Your task to perform on an android device: Search for vegetarian restaurants on Maps Image 0: 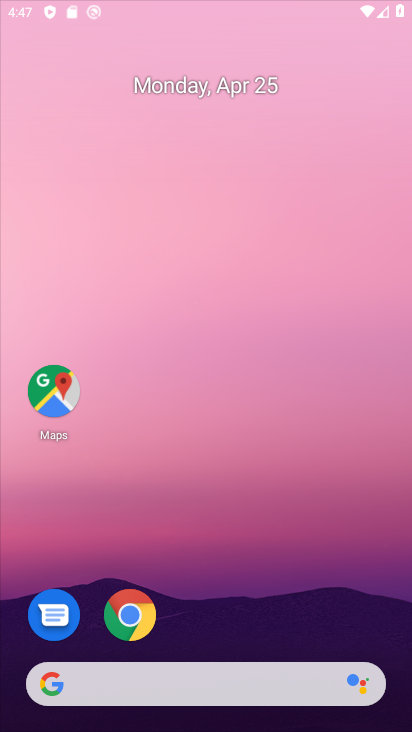
Step 0: click (411, 108)
Your task to perform on an android device: Search for vegetarian restaurants on Maps Image 1: 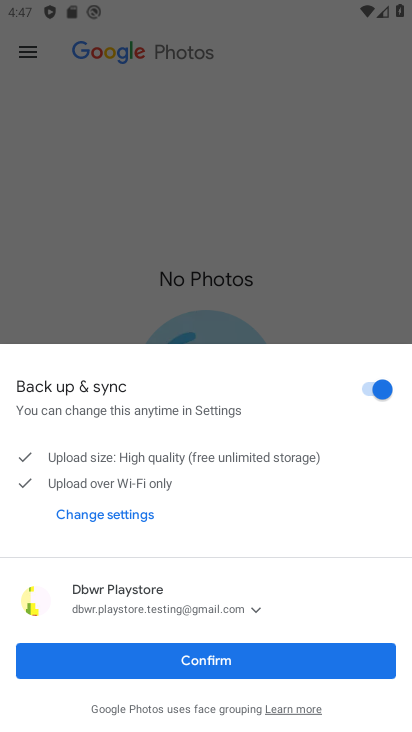
Step 1: press home button
Your task to perform on an android device: Search for vegetarian restaurants on Maps Image 2: 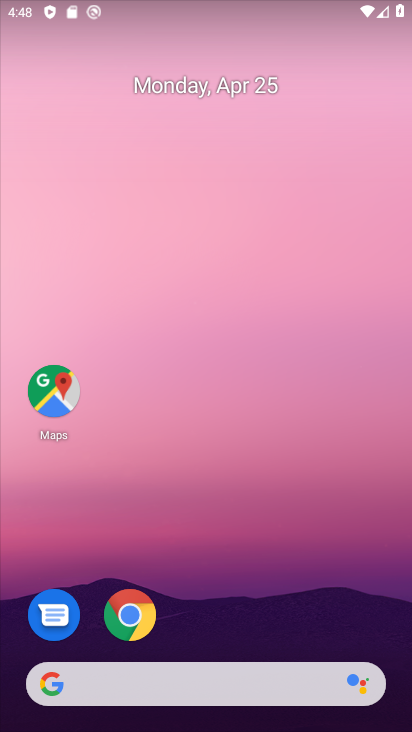
Step 2: drag from (290, 603) to (307, 1)
Your task to perform on an android device: Search for vegetarian restaurants on Maps Image 3: 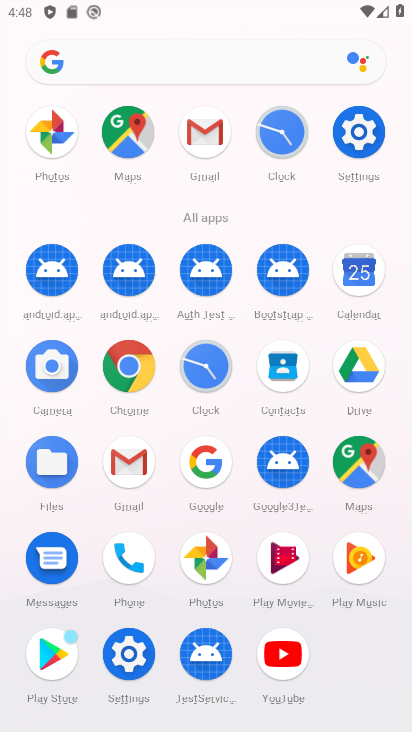
Step 3: click (133, 154)
Your task to perform on an android device: Search for vegetarian restaurants on Maps Image 4: 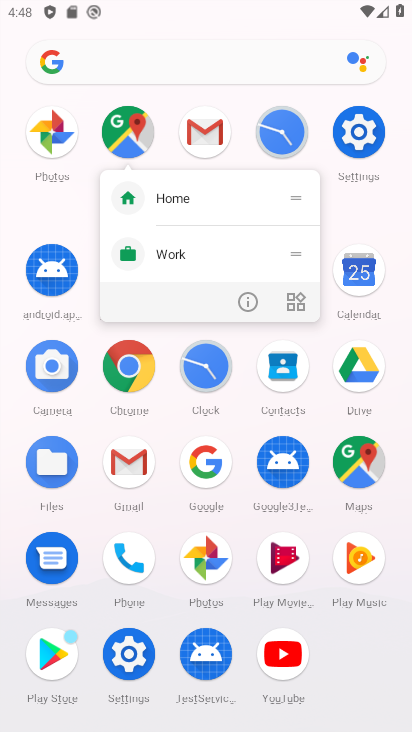
Step 4: click (115, 116)
Your task to perform on an android device: Search for vegetarian restaurants on Maps Image 5: 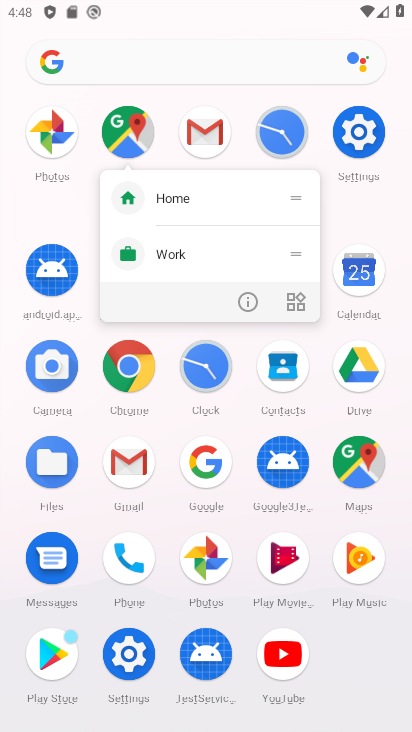
Step 5: click (119, 123)
Your task to perform on an android device: Search for vegetarian restaurants on Maps Image 6: 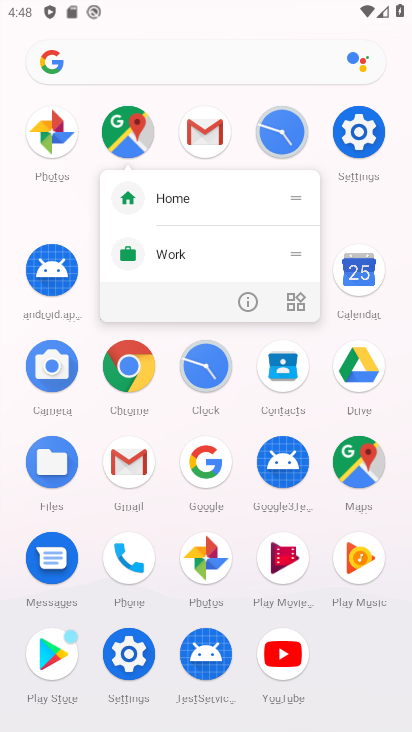
Step 6: click (119, 121)
Your task to perform on an android device: Search for vegetarian restaurants on Maps Image 7: 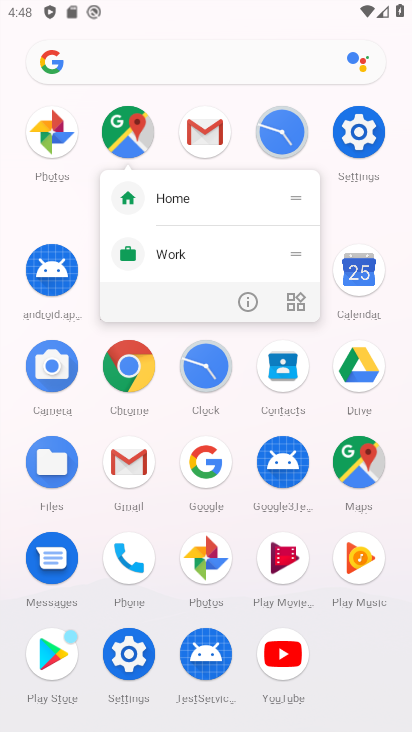
Step 7: click (119, 122)
Your task to perform on an android device: Search for vegetarian restaurants on Maps Image 8: 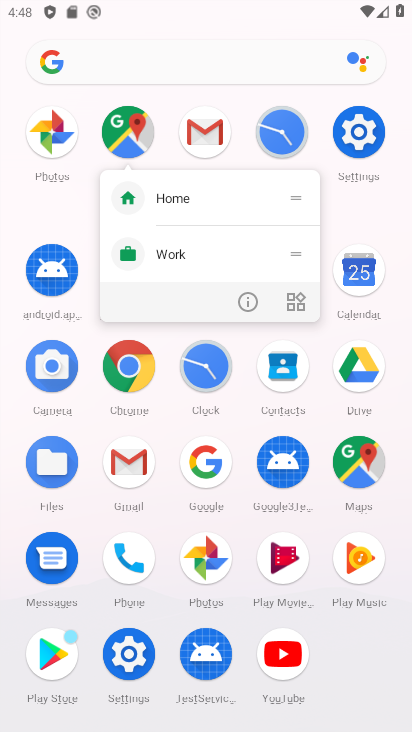
Step 8: click (119, 121)
Your task to perform on an android device: Search for vegetarian restaurants on Maps Image 9: 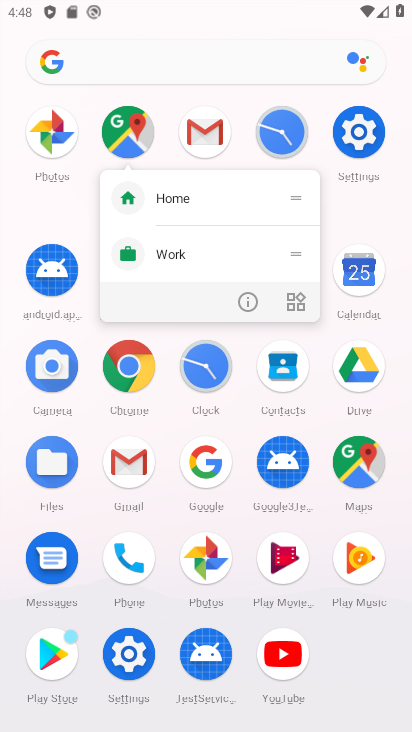
Step 9: click (119, 120)
Your task to perform on an android device: Search for vegetarian restaurants on Maps Image 10: 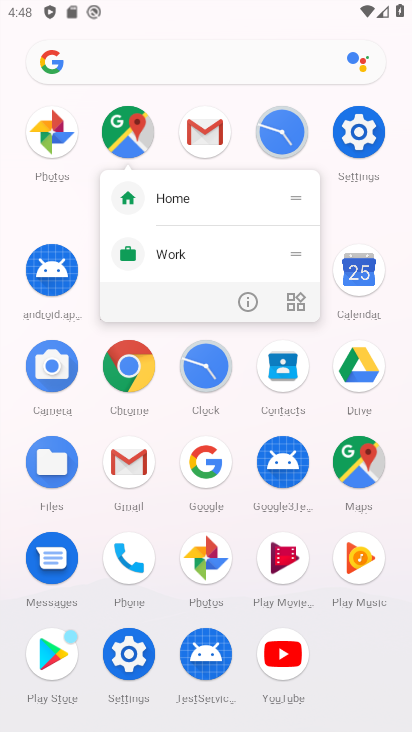
Step 10: click (119, 119)
Your task to perform on an android device: Search for vegetarian restaurants on Maps Image 11: 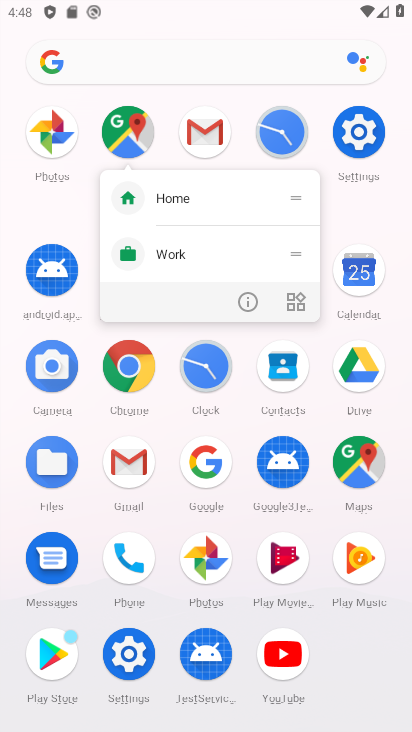
Step 11: click (119, 119)
Your task to perform on an android device: Search for vegetarian restaurants on Maps Image 12: 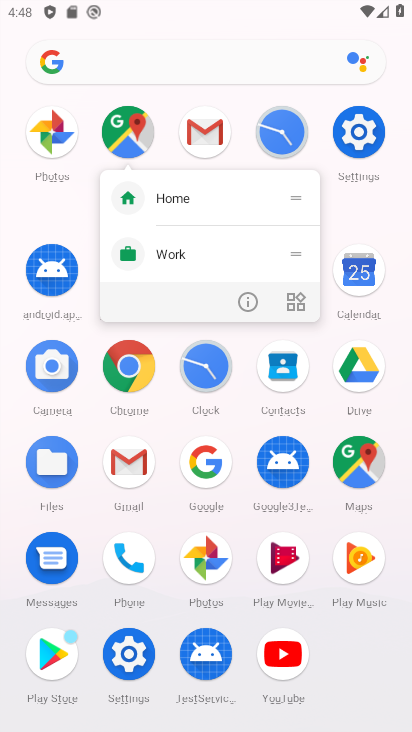
Step 12: click (119, 119)
Your task to perform on an android device: Search for vegetarian restaurants on Maps Image 13: 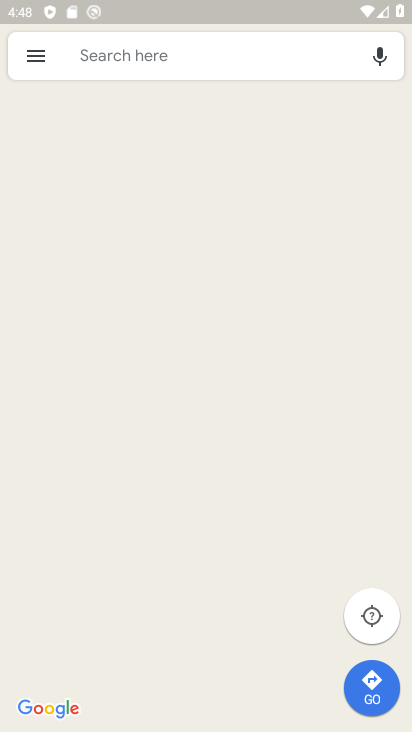
Step 13: click (245, 39)
Your task to perform on an android device: Search for vegetarian restaurants on Maps Image 14: 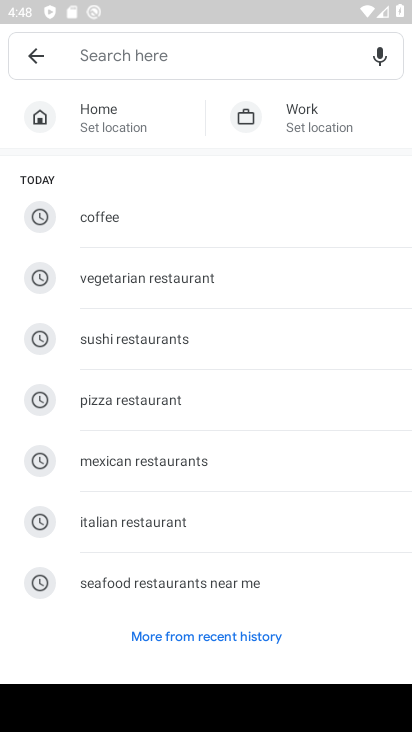
Step 14: type "vegetarian resturents"
Your task to perform on an android device: Search for vegetarian restaurants on Maps Image 15: 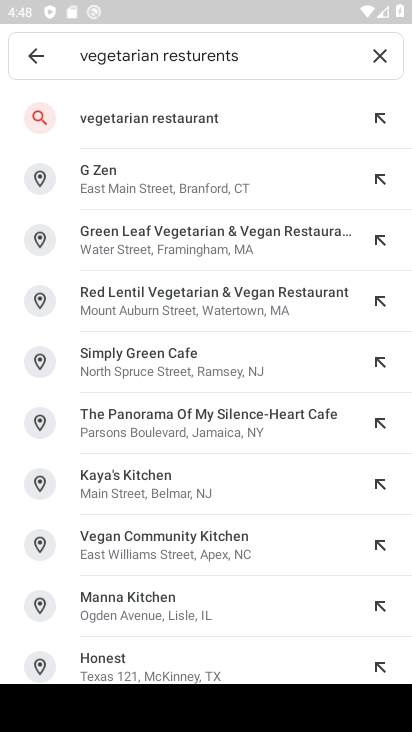
Step 15: click (169, 118)
Your task to perform on an android device: Search for vegetarian restaurants on Maps Image 16: 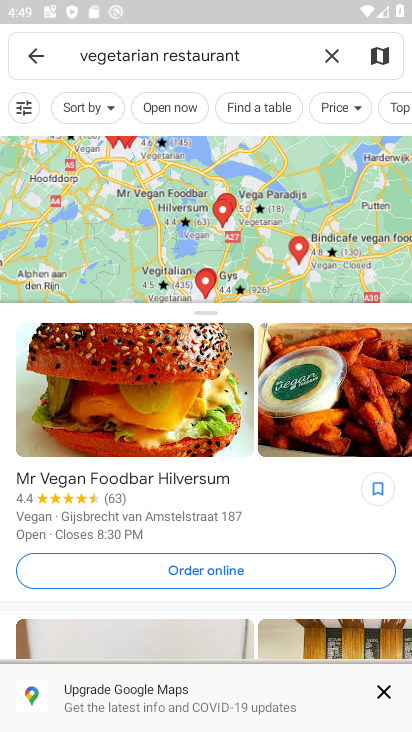
Step 16: task complete